Your task to perform on an android device: Go to Android settings Image 0: 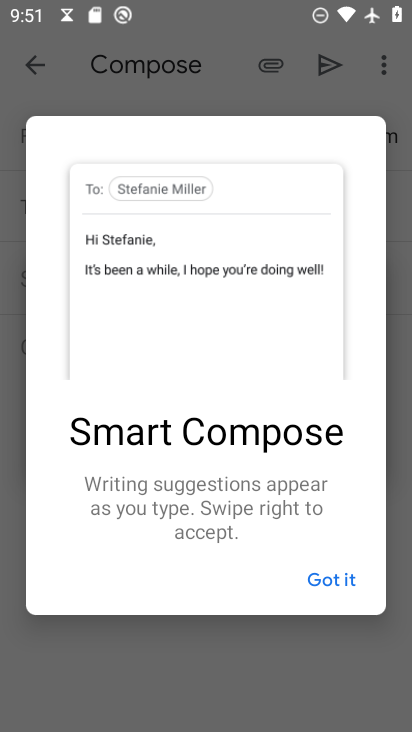
Step 0: press home button
Your task to perform on an android device: Go to Android settings Image 1: 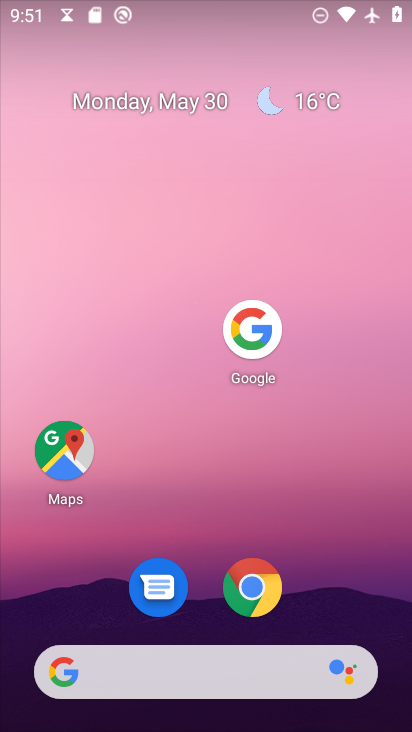
Step 1: drag from (215, 674) to (405, 45)
Your task to perform on an android device: Go to Android settings Image 2: 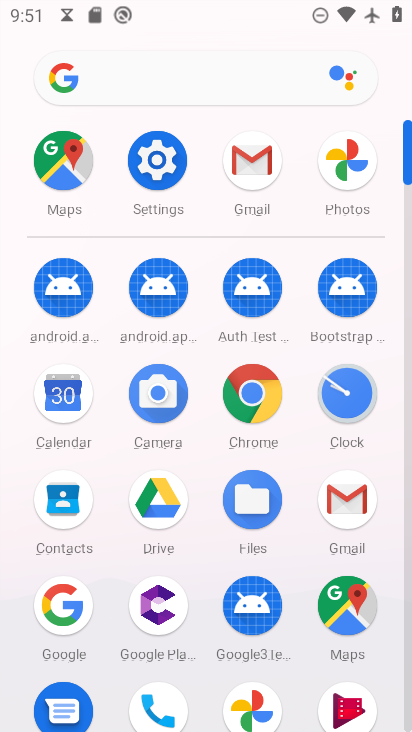
Step 2: click (160, 148)
Your task to perform on an android device: Go to Android settings Image 3: 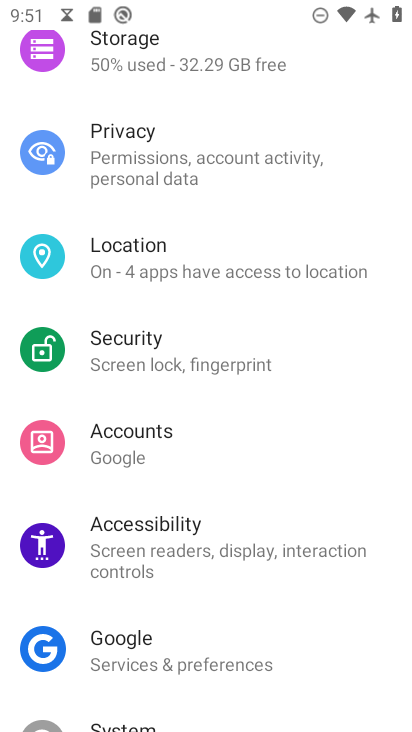
Step 3: task complete